Your task to perform on an android device: allow cookies in the chrome app Image 0: 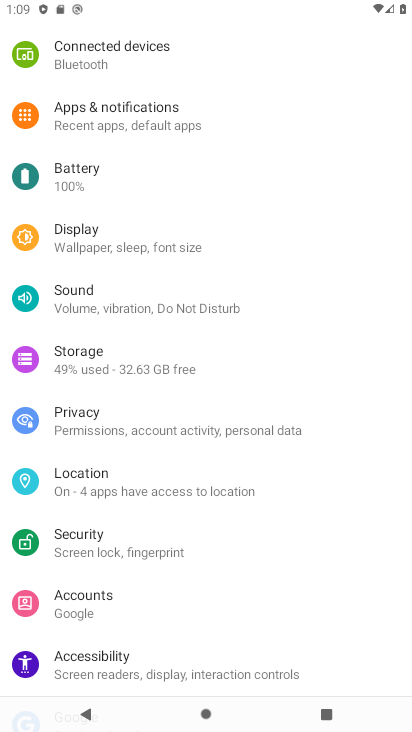
Step 0: press home button
Your task to perform on an android device: allow cookies in the chrome app Image 1: 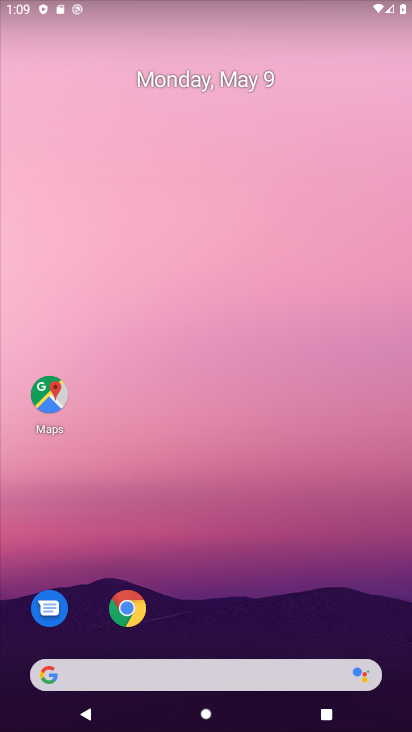
Step 1: drag from (253, 579) to (246, 42)
Your task to perform on an android device: allow cookies in the chrome app Image 2: 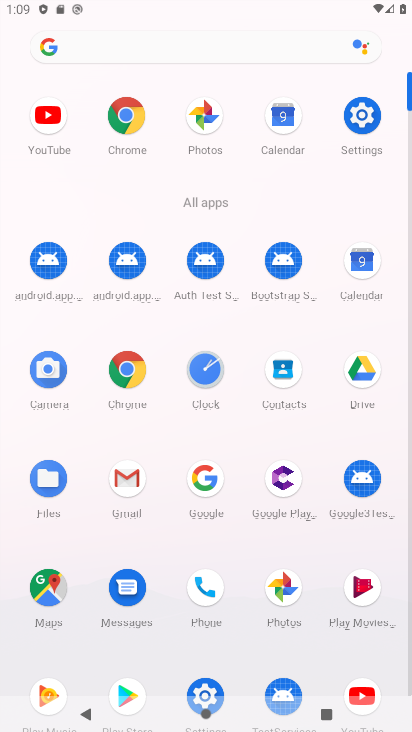
Step 2: click (130, 101)
Your task to perform on an android device: allow cookies in the chrome app Image 3: 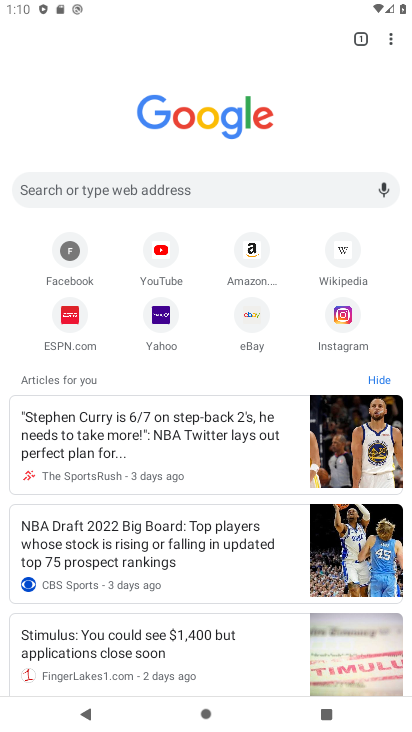
Step 3: click (394, 30)
Your task to perform on an android device: allow cookies in the chrome app Image 4: 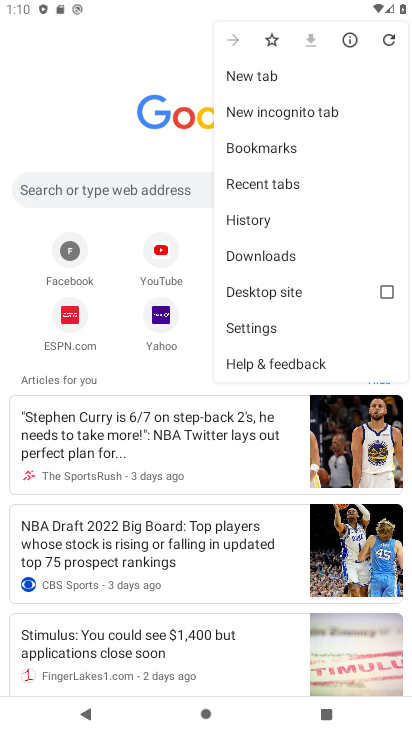
Step 4: click (267, 318)
Your task to perform on an android device: allow cookies in the chrome app Image 5: 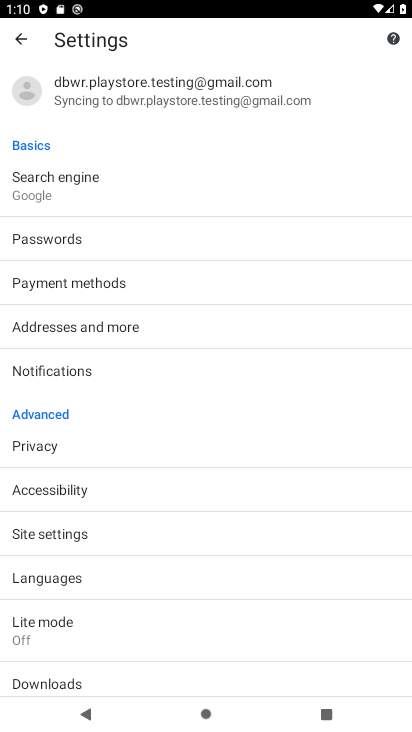
Step 5: click (70, 536)
Your task to perform on an android device: allow cookies in the chrome app Image 6: 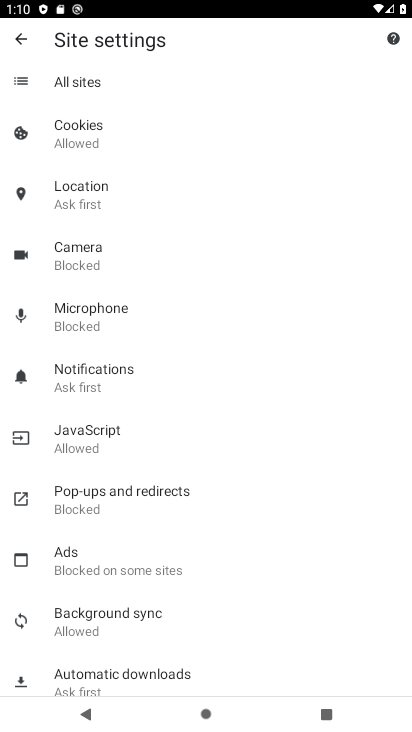
Step 6: click (140, 116)
Your task to perform on an android device: allow cookies in the chrome app Image 7: 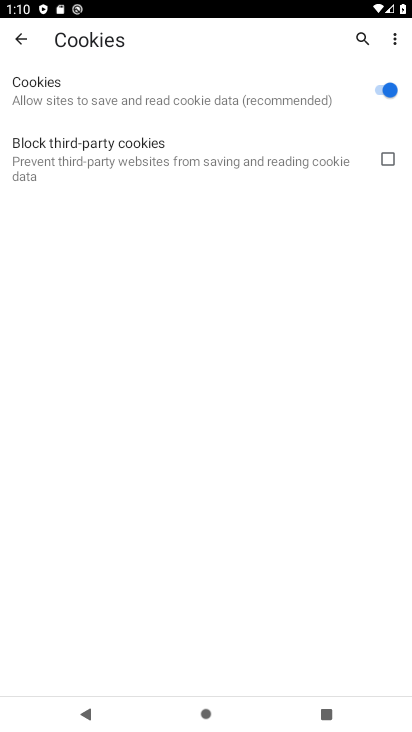
Step 7: task complete